Your task to perform on an android device: set an alarm Image 0: 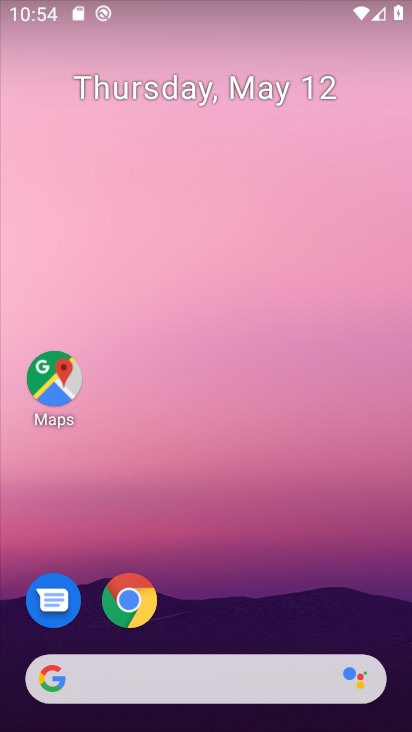
Step 0: drag from (244, 629) to (89, 102)
Your task to perform on an android device: set an alarm Image 1: 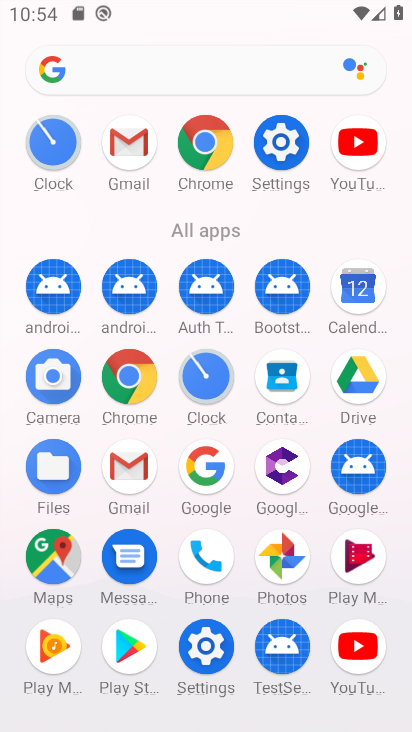
Step 1: click (209, 377)
Your task to perform on an android device: set an alarm Image 2: 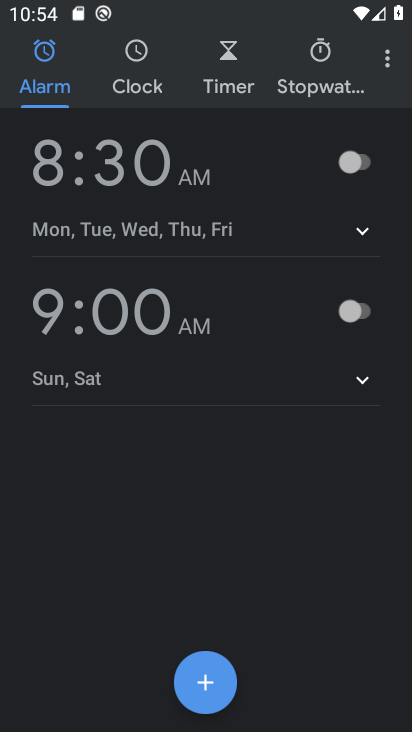
Step 2: click (366, 319)
Your task to perform on an android device: set an alarm Image 3: 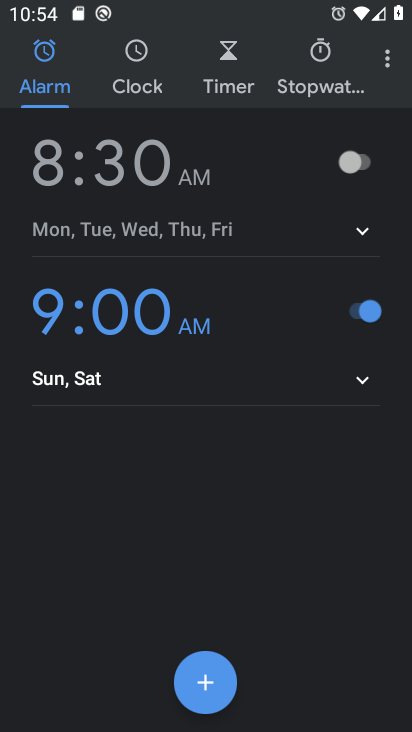
Step 3: task complete